Your task to perform on an android device: toggle improve location accuracy Image 0: 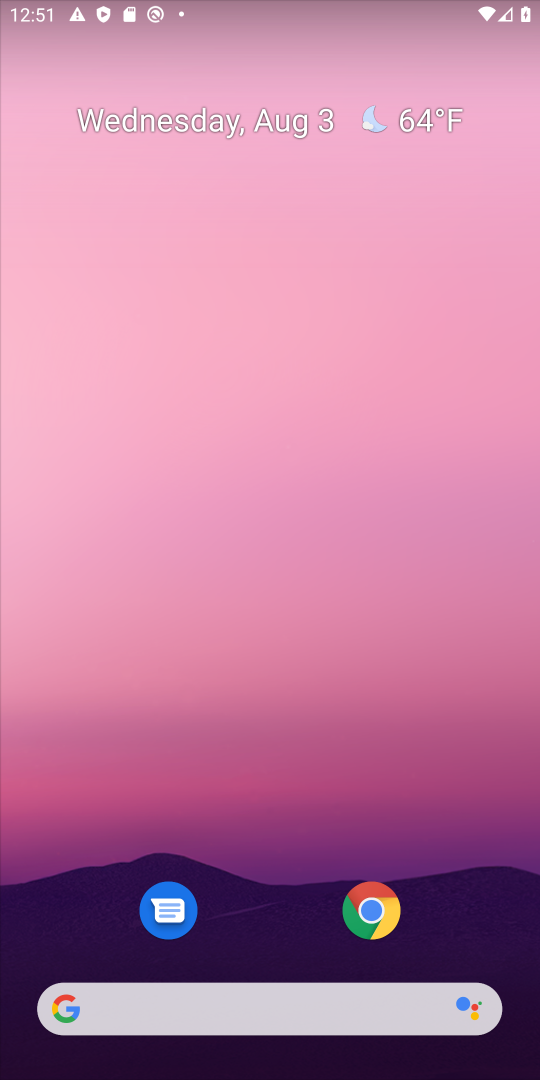
Step 0: press home button
Your task to perform on an android device: toggle improve location accuracy Image 1: 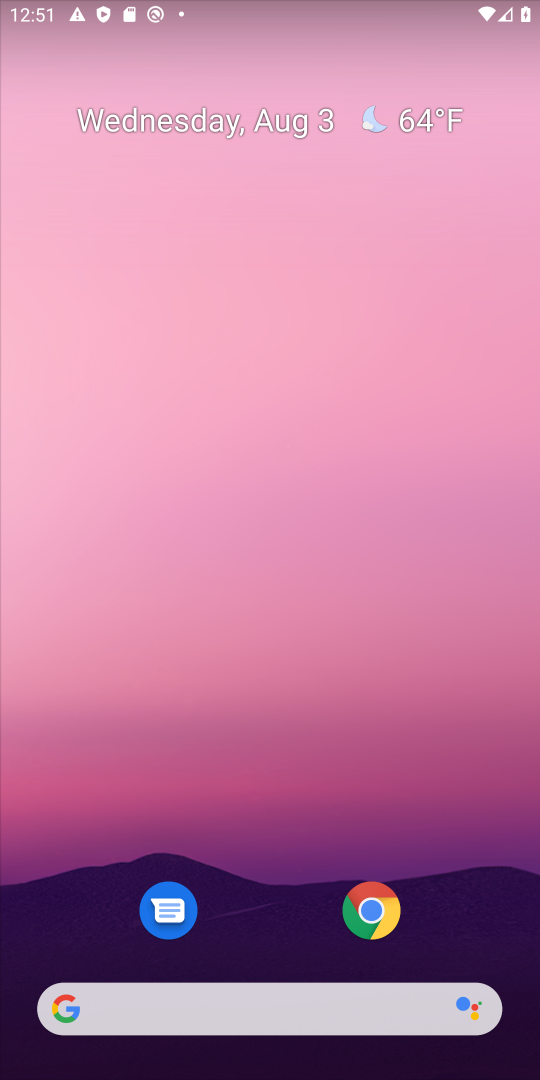
Step 1: drag from (293, 671) to (268, 180)
Your task to perform on an android device: toggle improve location accuracy Image 2: 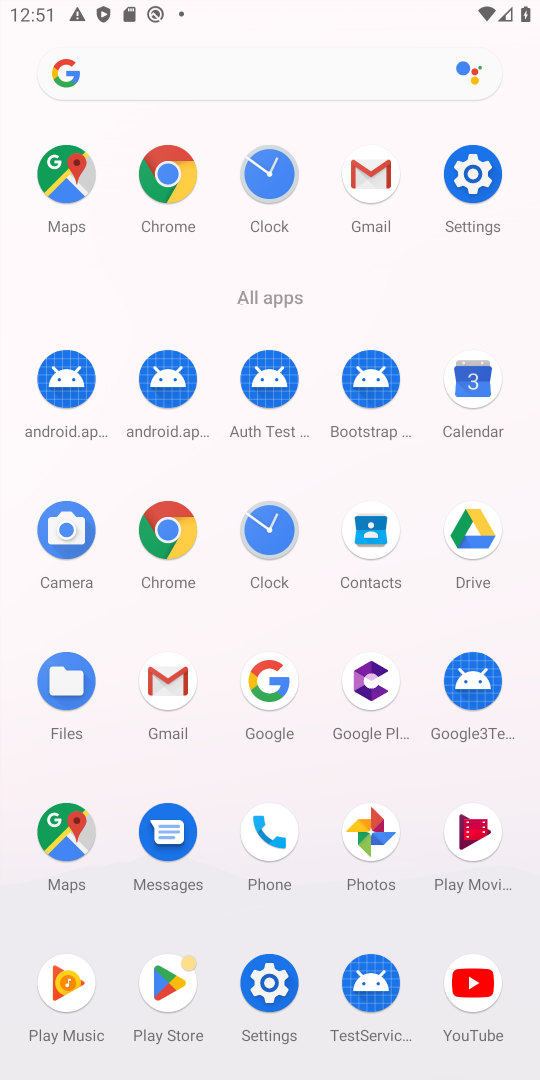
Step 2: click (481, 167)
Your task to perform on an android device: toggle improve location accuracy Image 3: 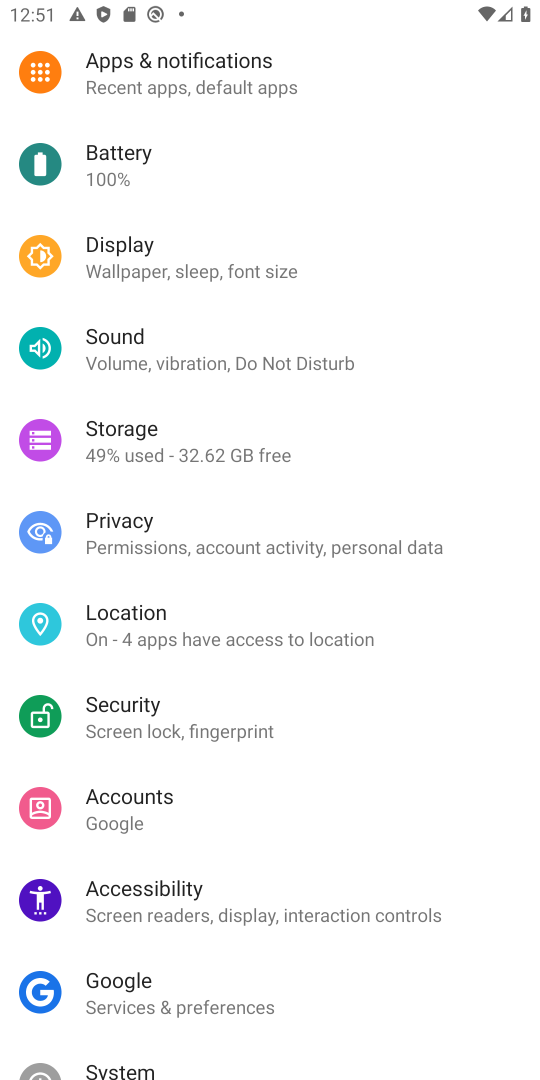
Step 3: click (236, 614)
Your task to perform on an android device: toggle improve location accuracy Image 4: 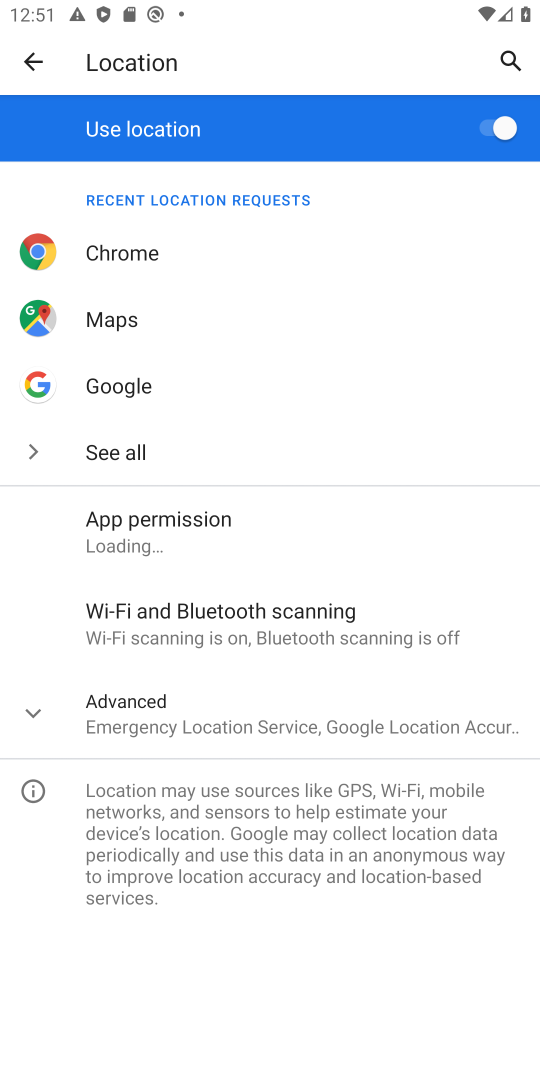
Step 4: click (290, 719)
Your task to perform on an android device: toggle improve location accuracy Image 5: 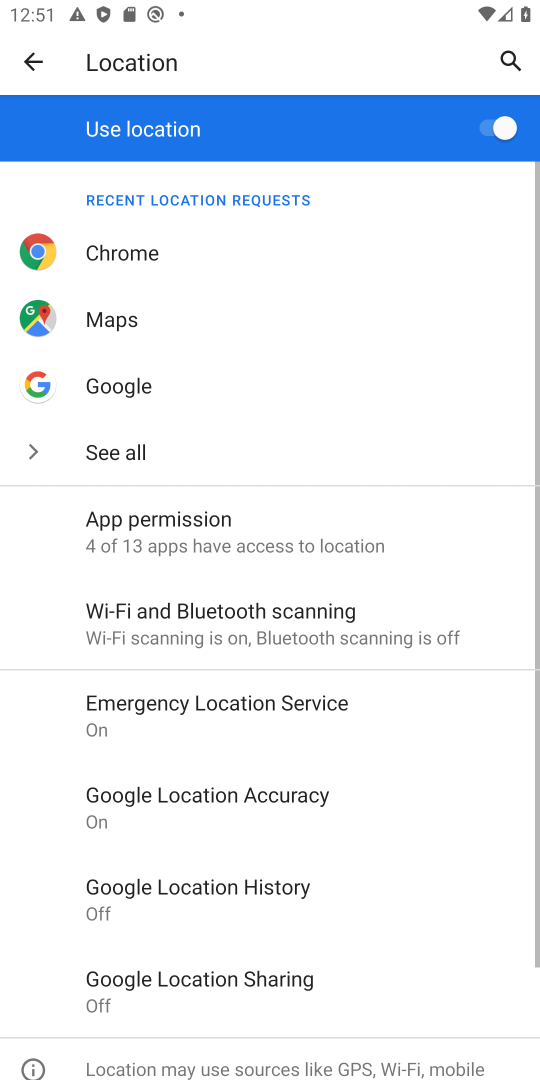
Step 5: click (288, 886)
Your task to perform on an android device: toggle improve location accuracy Image 6: 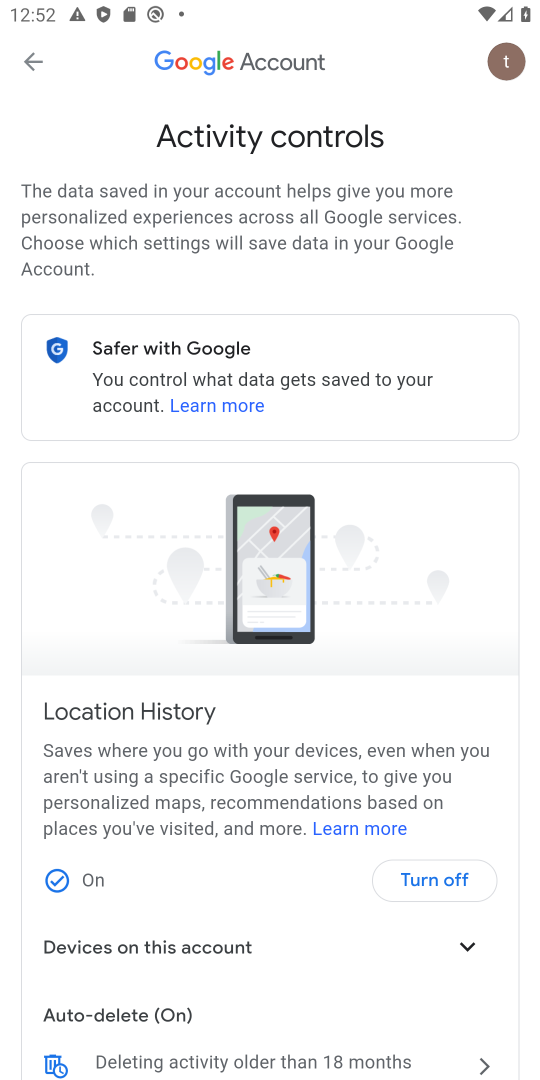
Step 6: click (429, 880)
Your task to perform on an android device: toggle improve location accuracy Image 7: 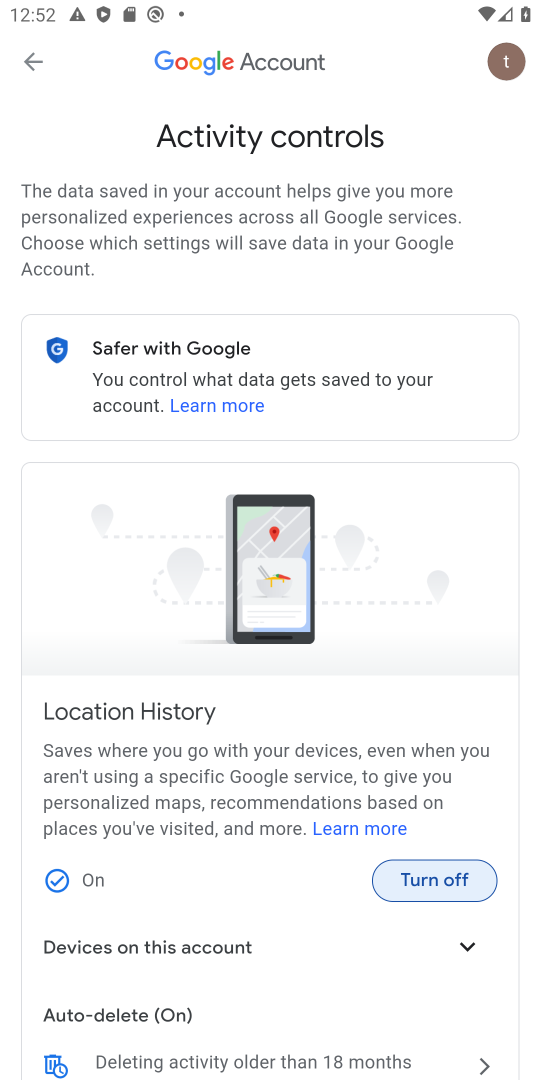
Step 7: click (438, 875)
Your task to perform on an android device: toggle improve location accuracy Image 8: 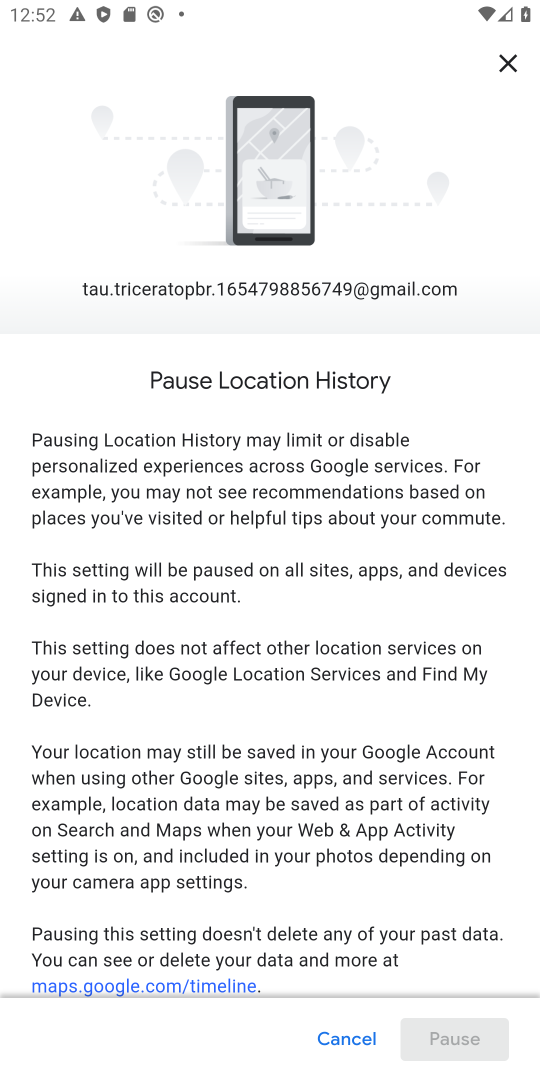
Step 8: drag from (347, 951) to (431, 2)
Your task to perform on an android device: toggle improve location accuracy Image 9: 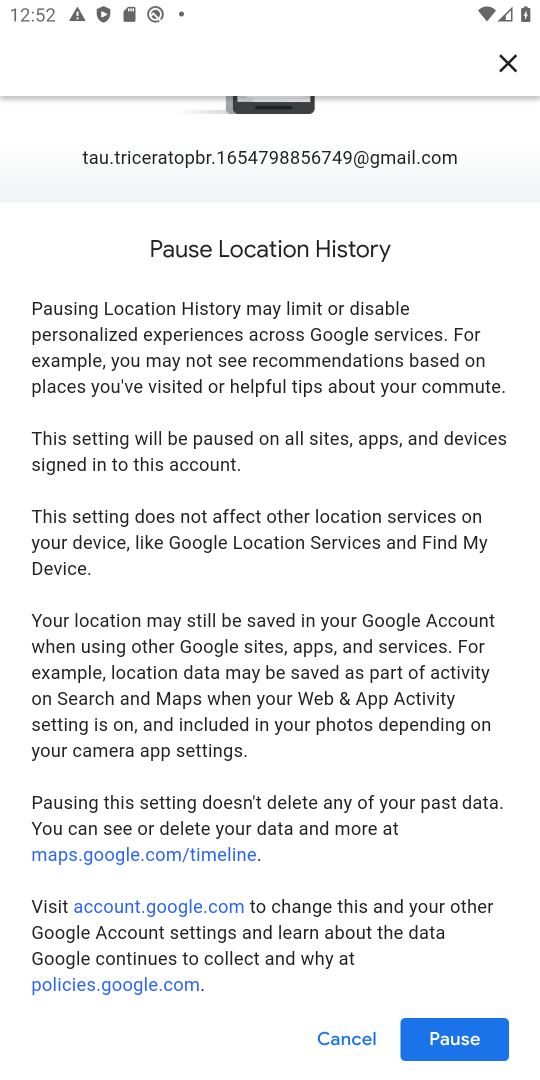
Step 9: drag from (264, 920) to (291, 88)
Your task to perform on an android device: toggle improve location accuracy Image 10: 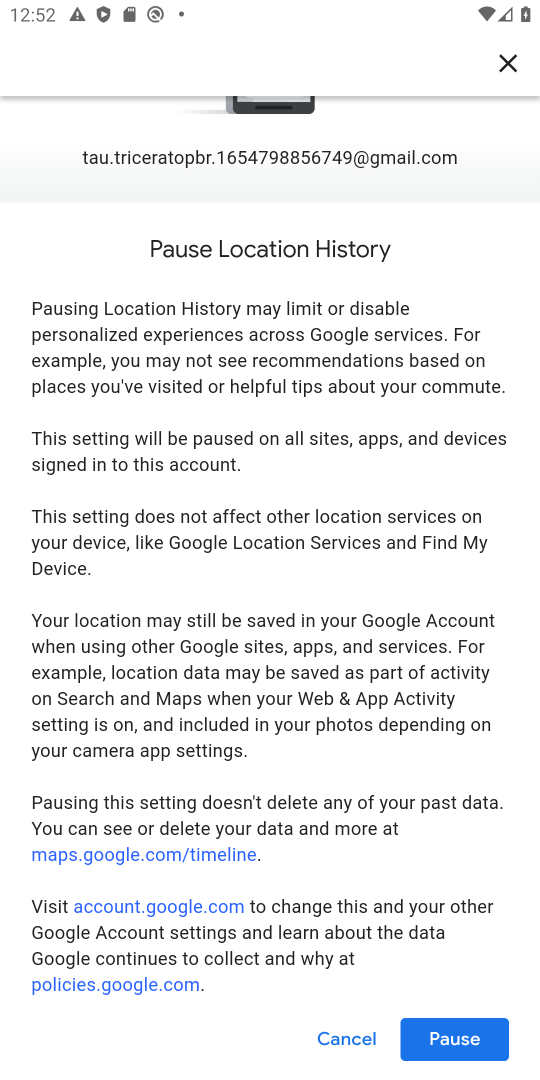
Step 10: click (487, 1042)
Your task to perform on an android device: toggle improve location accuracy Image 11: 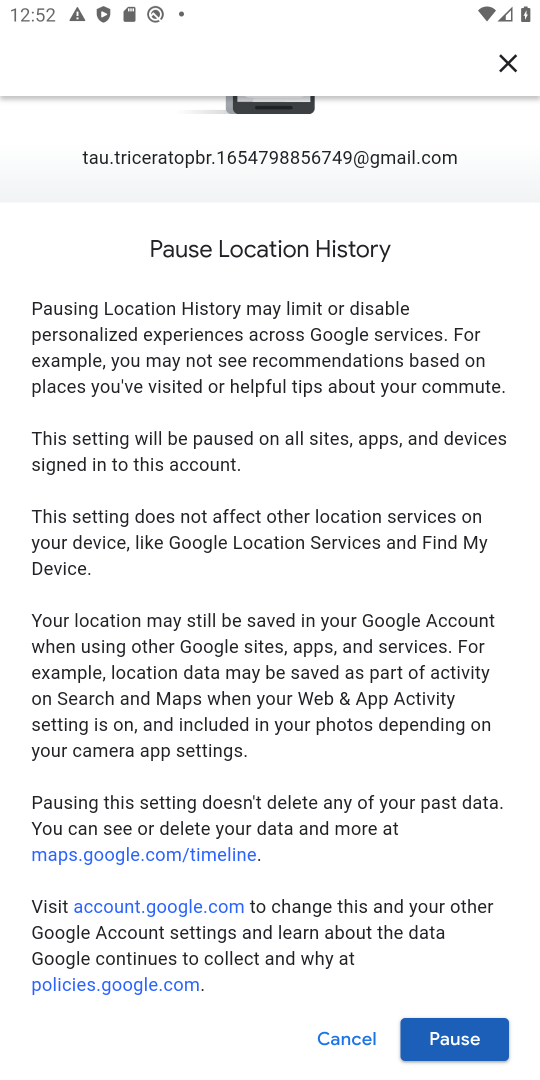
Step 11: click (495, 1037)
Your task to perform on an android device: toggle improve location accuracy Image 12: 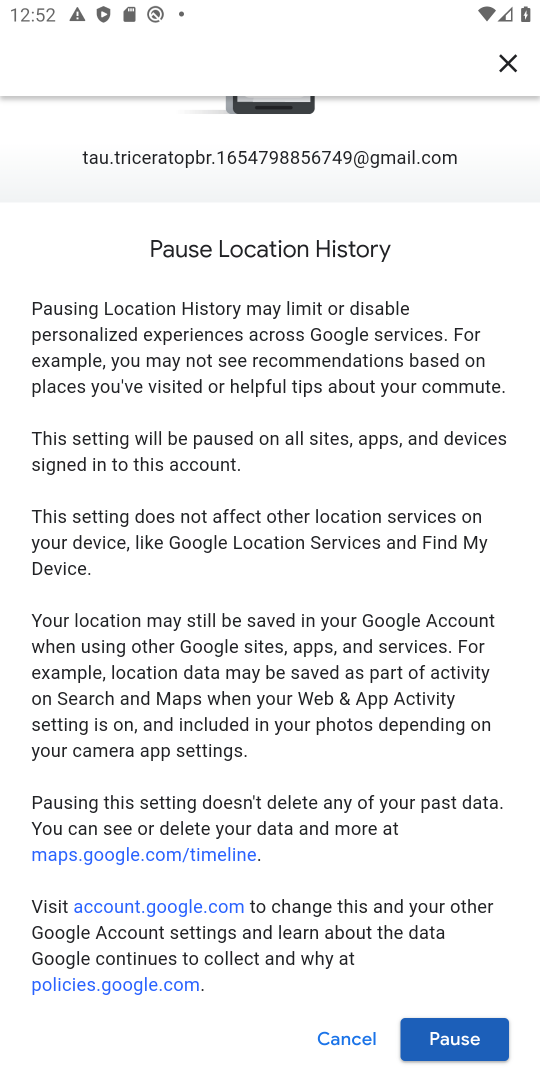
Step 12: click (459, 1041)
Your task to perform on an android device: toggle improve location accuracy Image 13: 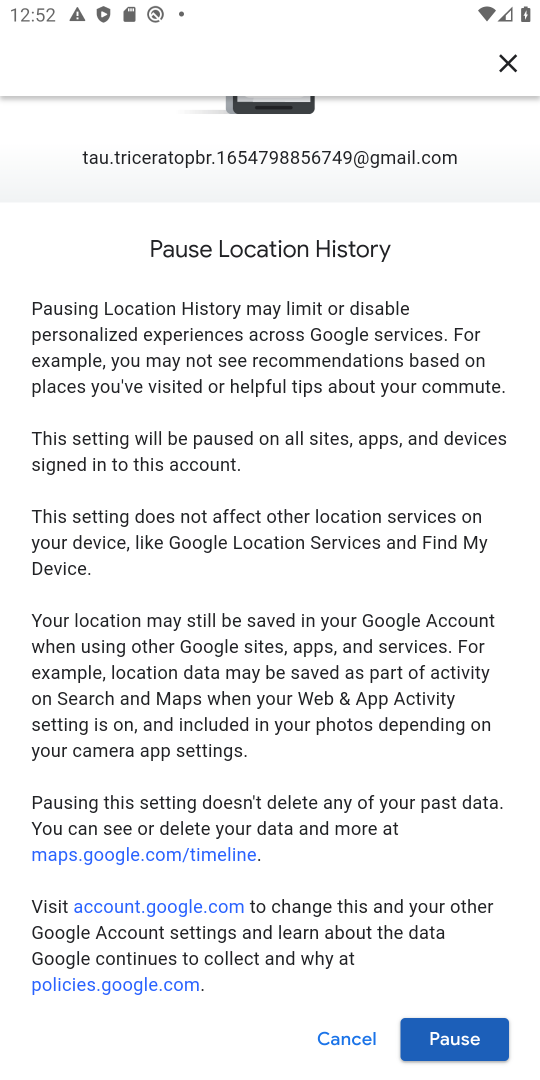
Step 13: click (490, 1040)
Your task to perform on an android device: toggle improve location accuracy Image 14: 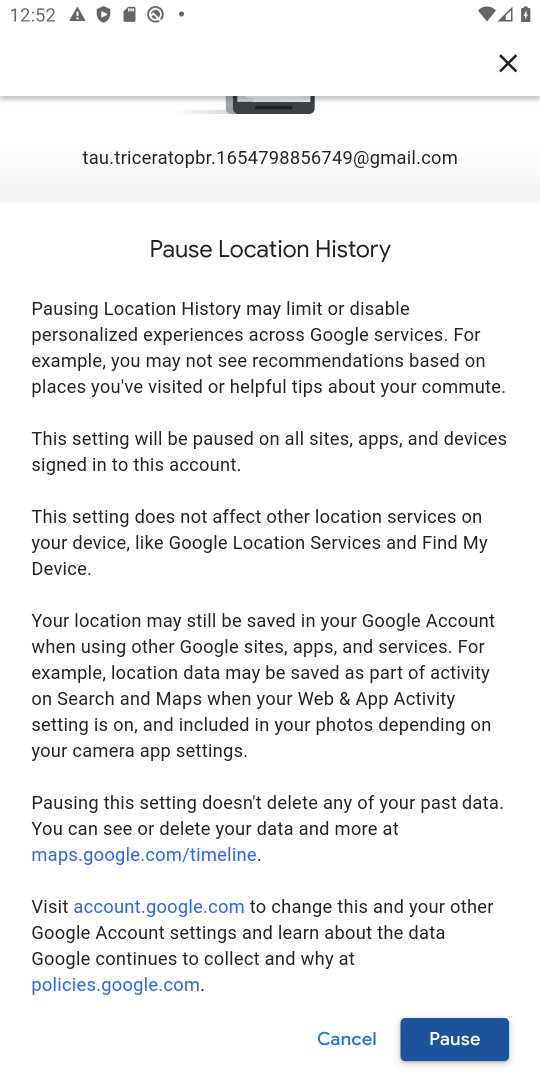
Step 14: click (488, 1036)
Your task to perform on an android device: toggle improve location accuracy Image 15: 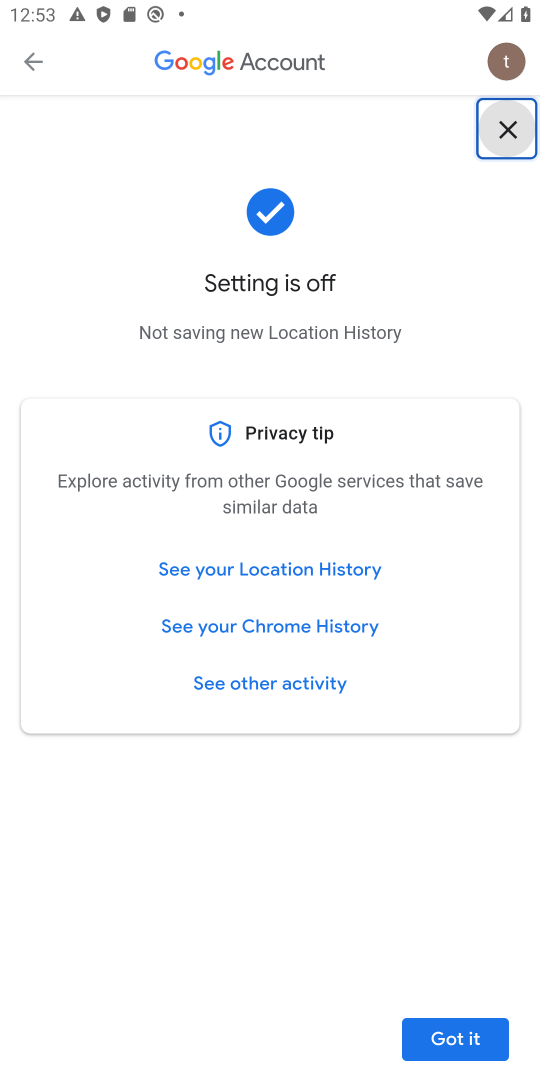
Step 15: task complete